Your task to perform on an android device: turn off translation in the chrome app Image 0: 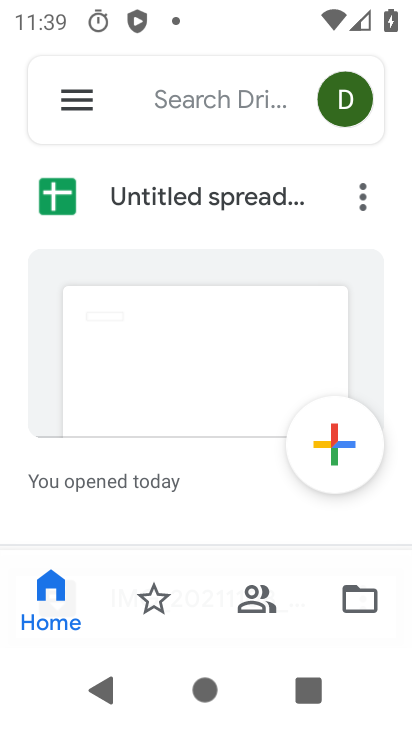
Step 0: press home button
Your task to perform on an android device: turn off translation in the chrome app Image 1: 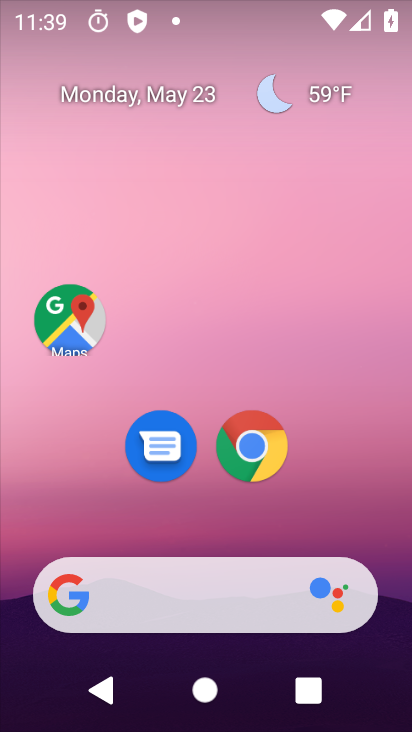
Step 1: click (254, 443)
Your task to perform on an android device: turn off translation in the chrome app Image 2: 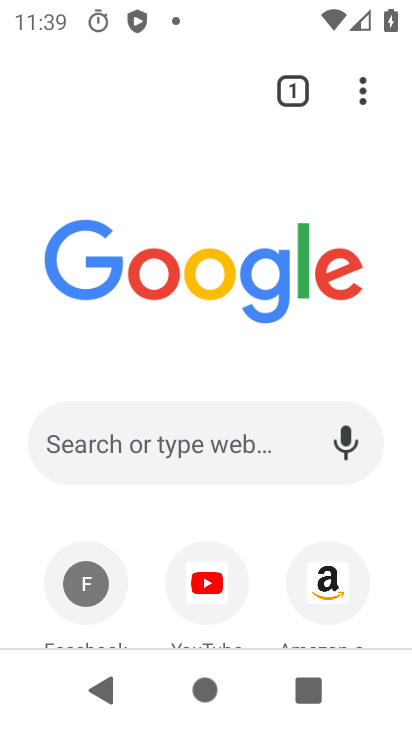
Step 2: click (362, 90)
Your task to perform on an android device: turn off translation in the chrome app Image 3: 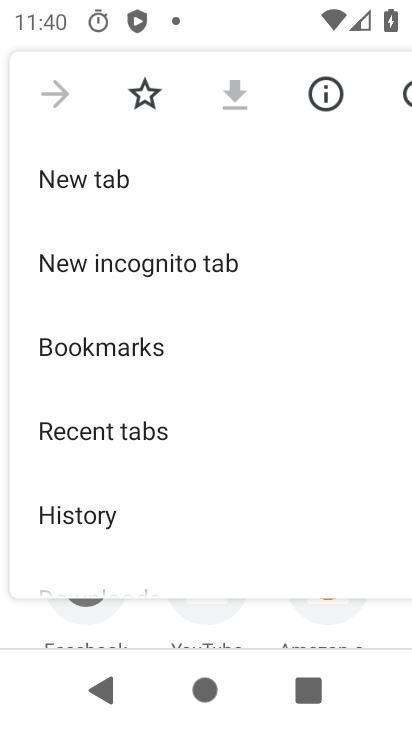
Step 3: drag from (146, 520) to (209, 132)
Your task to perform on an android device: turn off translation in the chrome app Image 4: 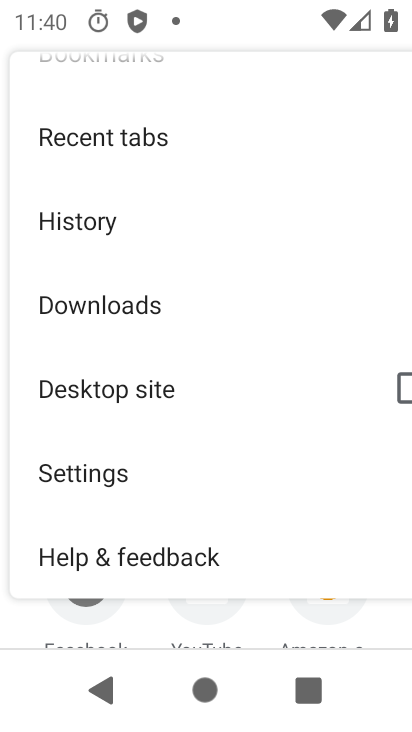
Step 4: click (111, 477)
Your task to perform on an android device: turn off translation in the chrome app Image 5: 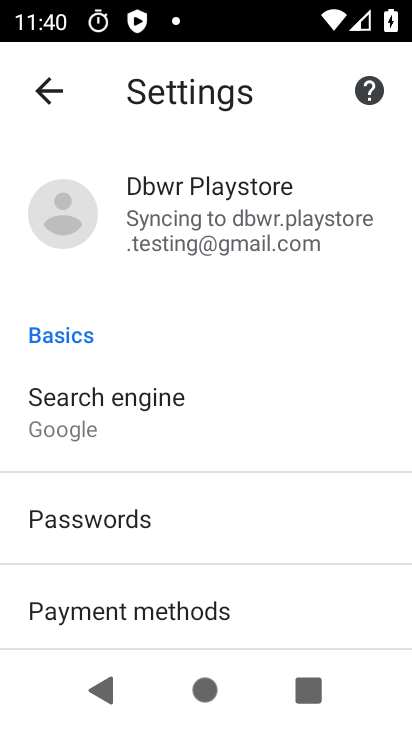
Step 5: drag from (166, 563) to (177, 268)
Your task to perform on an android device: turn off translation in the chrome app Image 6: 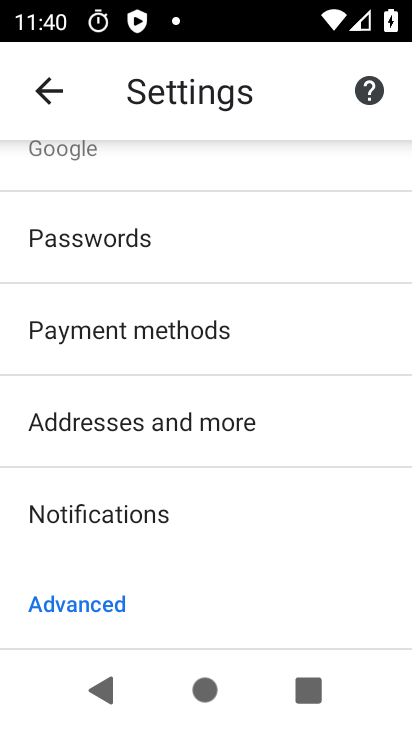
Step 6: drag from (119, 571) to (153, 206)
Your task to perform on an android device: turn off translation in the chrome app Image 7: 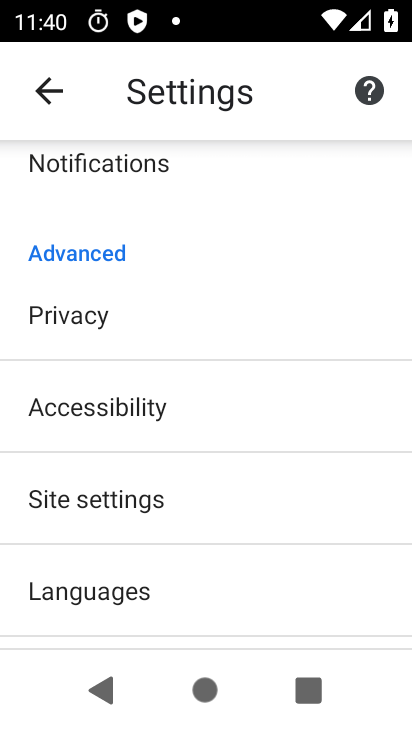
Step 7: click (86, 605)
Your task to perform on an android device: turn off translation in the chrome app Image 8: 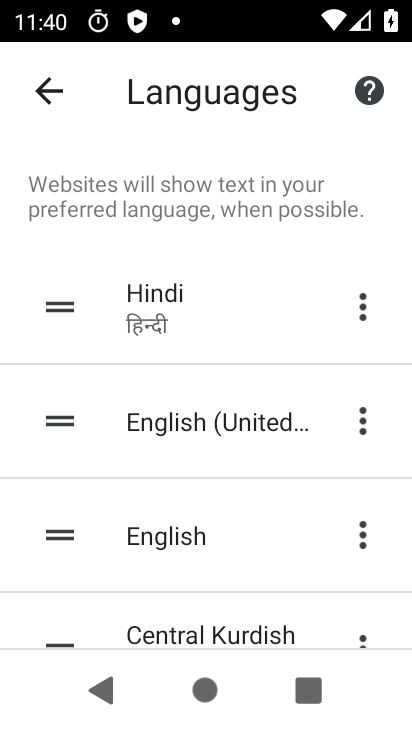
Step 8: task complete